Your task to perform on an android device: Check the weather Image 0: 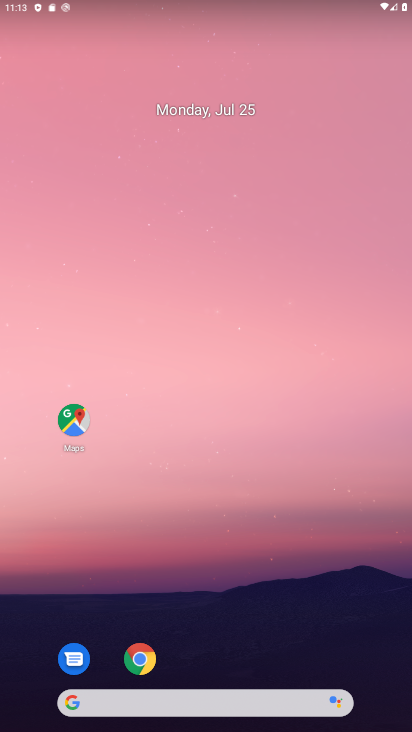
Step 0: click (96, 705)
Your task to perform on an android device: Check the weather Image 1: 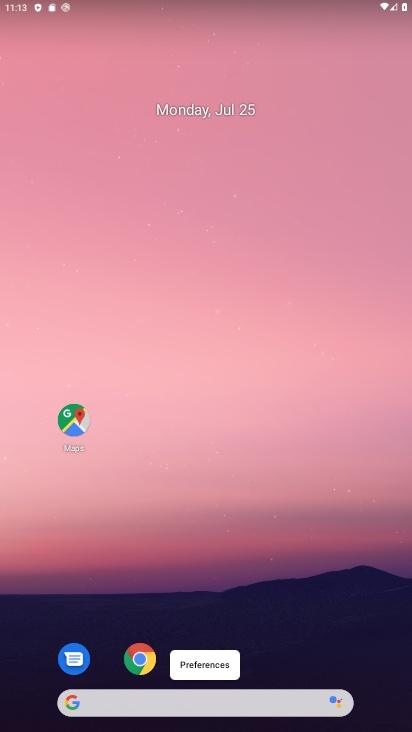
Step 1: click (105, 699)
Your task to perform on an android device: Check the weather Image 2: 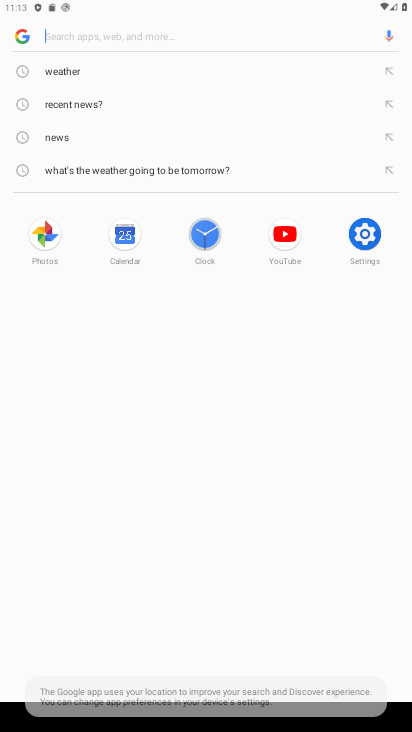
Step 2: click (57, 66)
Your task to perform on an android device: Check the weather Image 3: 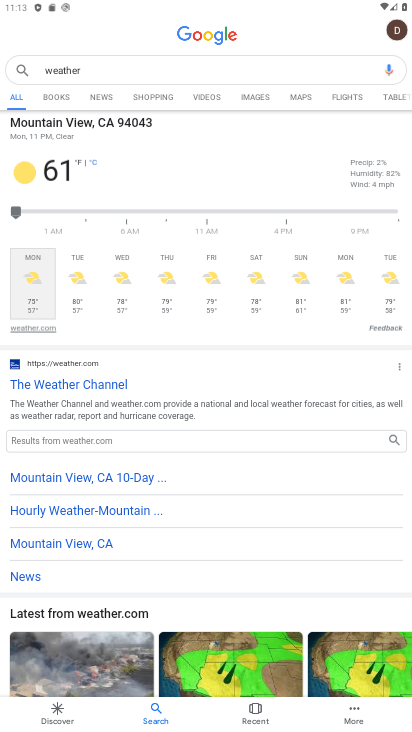
Step 3: task complete